Your task to perform on an android device: open chrome privacy settings Image 0: 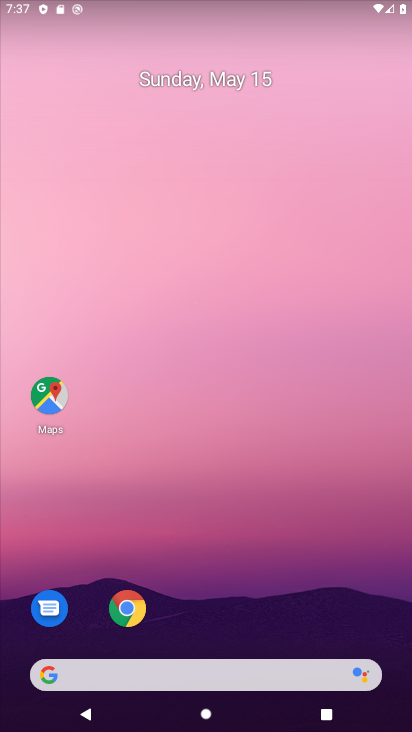
Step 0: click (137, 609)
Your task to perform on an android device: open chrome privacy settings Image 1: 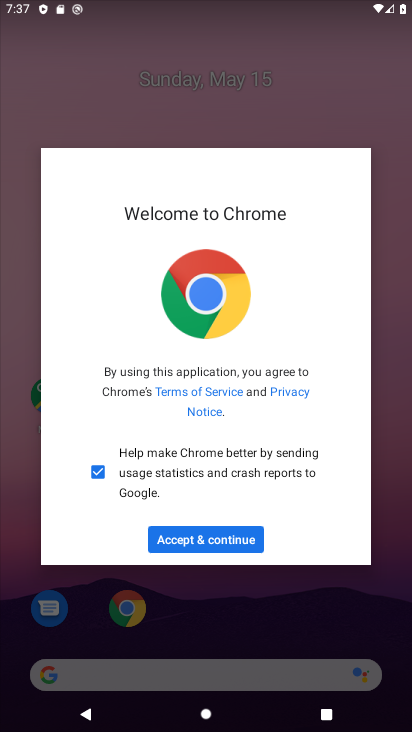
Step 1: click (215, 533)
Your task to perform on an android device: open chrome privacy settings Image 2: 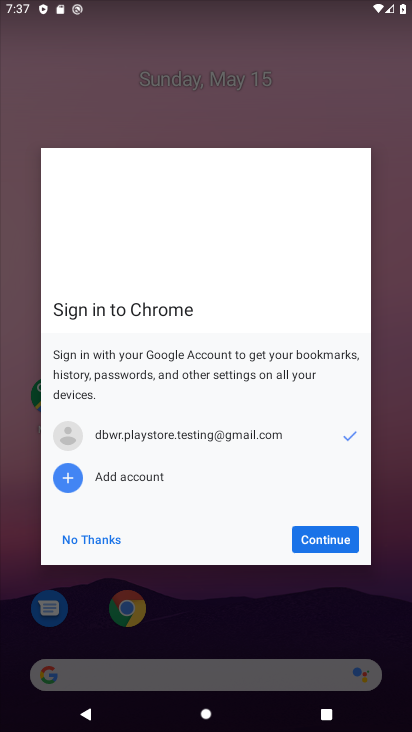
Step 2: click (311, 533)
Your task to perform on an android device: open chrome privacy settings Image 3: 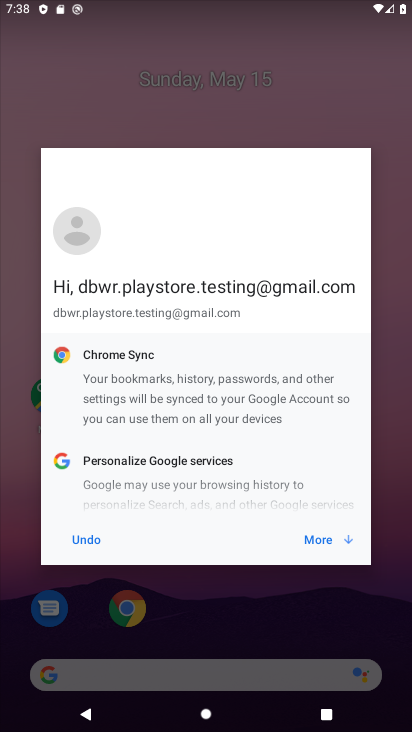
Step 3: click (315, 536)
Your task to perform on an android device: open chrome privacy settings Image 4: 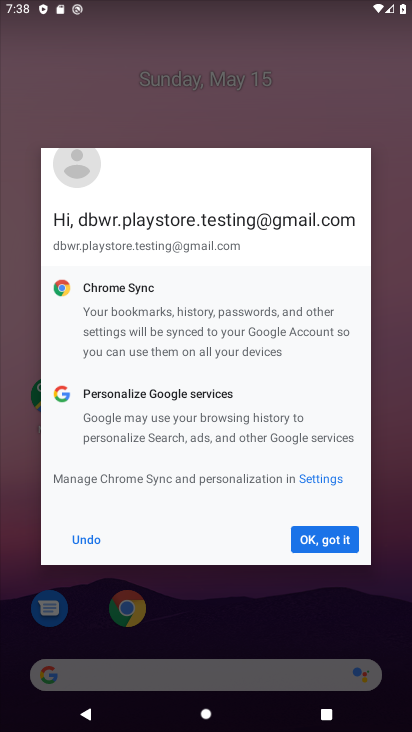
Step 4: click (315, 536)
Your task to perform on an android device: open chrome privacy settings Image 5: 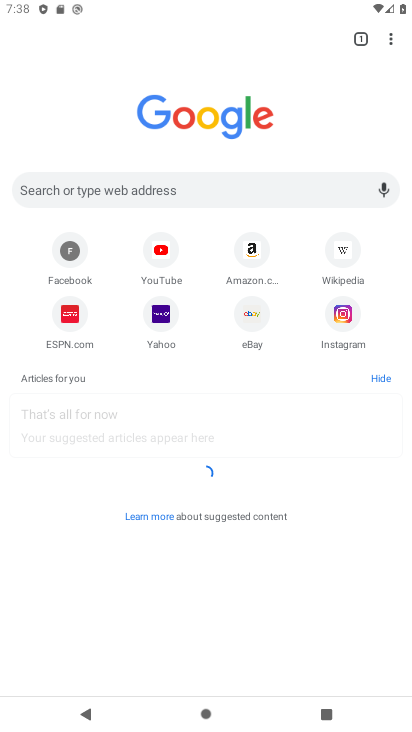
Step 5: click (387, 40)
Your task to perform on an android device: open chrome privacy settings Image 6: 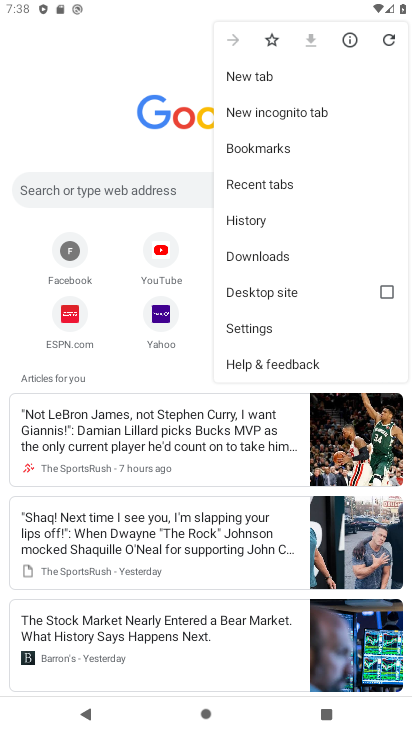
Step 6: click (257, 332)
Your task to perform on an android device: open chrome privacy settings Image 7: 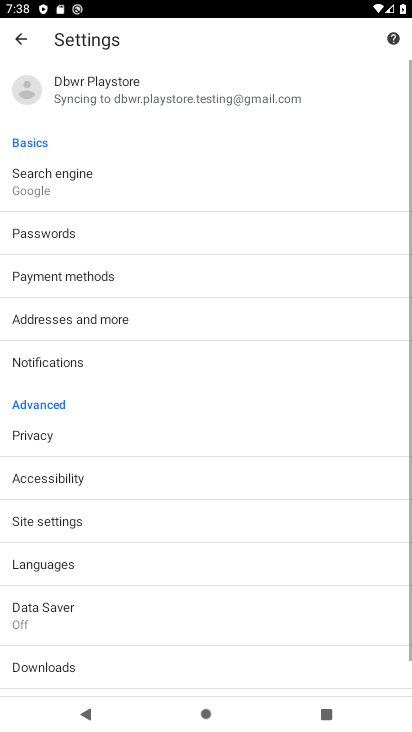
Step 7: click (76, 440)
Your task to perform on an android device: open chrome privacy settings Image 8: 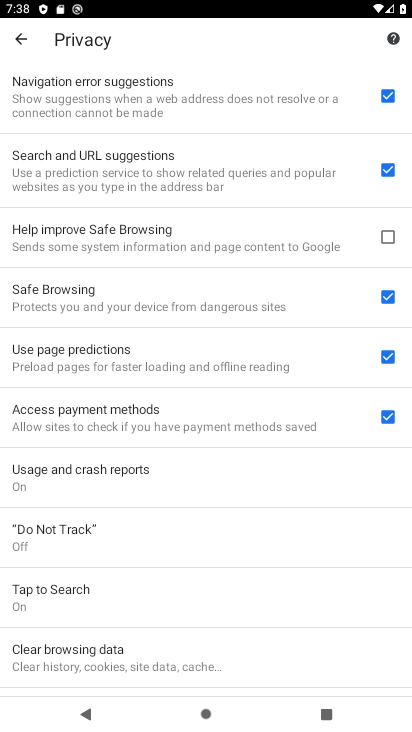
Step 8: task complete